Your task to perform on an android device: Open eBay Image 0: 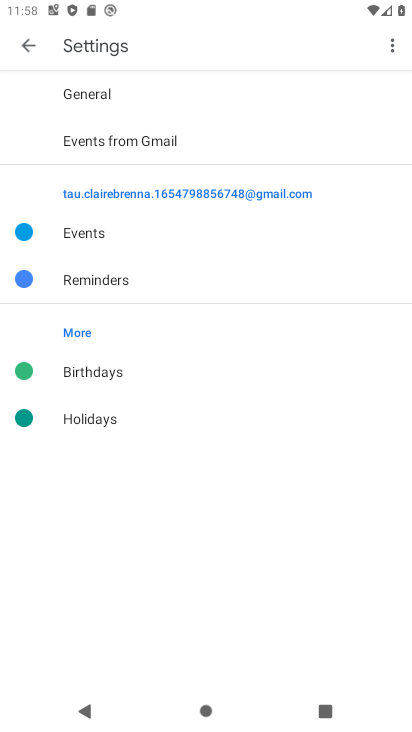
Step 0: press home button
Your task to perform on an android device: Open eBay Image 1: 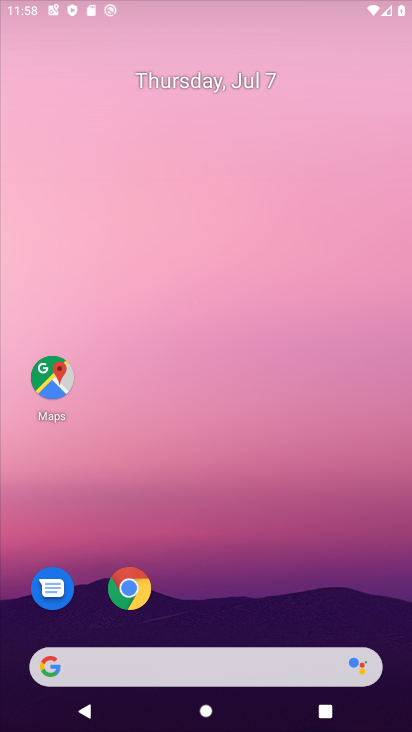
Step 1: drag from (223, 600) to (227, 142)
Your task to perform on an android device: Open eBay Image 2: 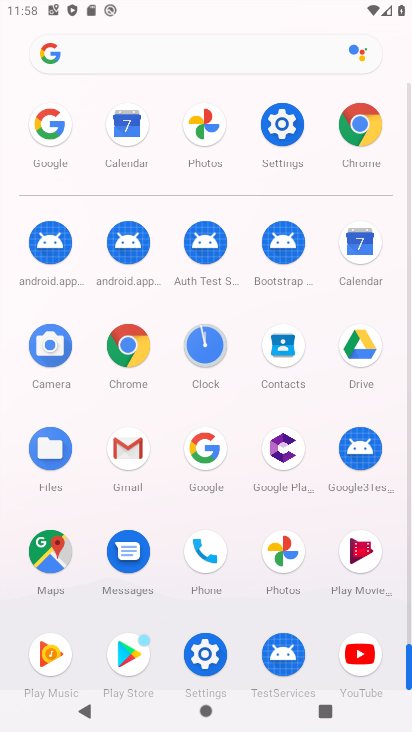
Step 2: click (207, 451)
Your task to perform on an android device: Open eBay Image 3: 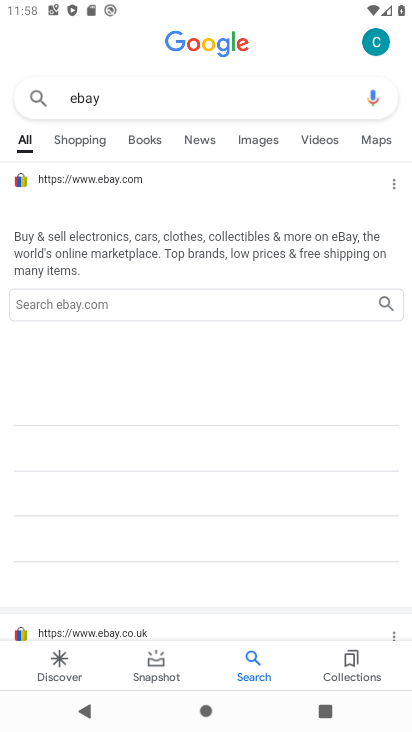
Step 3: click (192, 102)
Your task to perform on an android device: Open eBay Image 4: 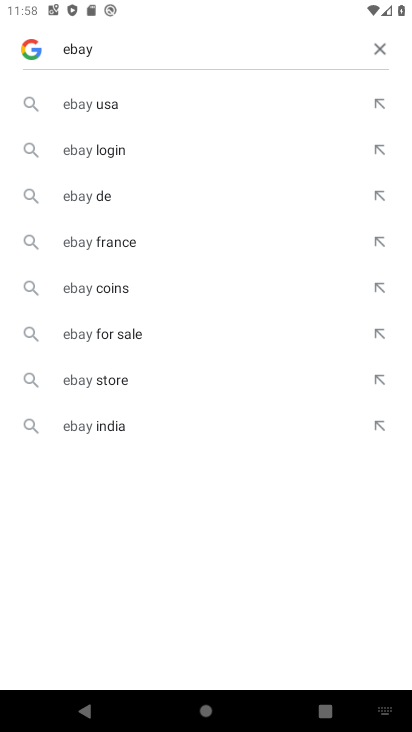
Step 4: click (367, 49)
Your task to perform on an android device: Open eBay Image 5: 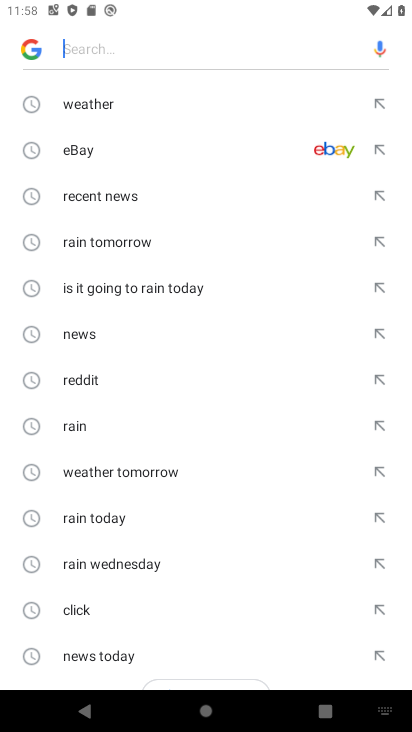
Step 5: click (99, 171)
Your task to perform on an android device: Open eBay Image 6: 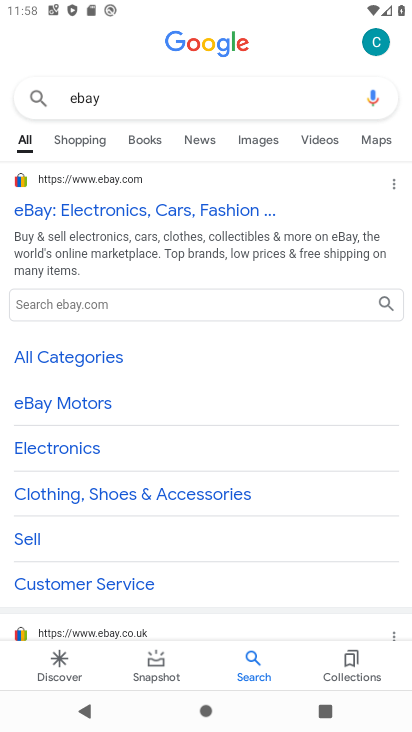
Step 6: click (96, 202)
Your task to perform on an android device: Open eBay Image 7: 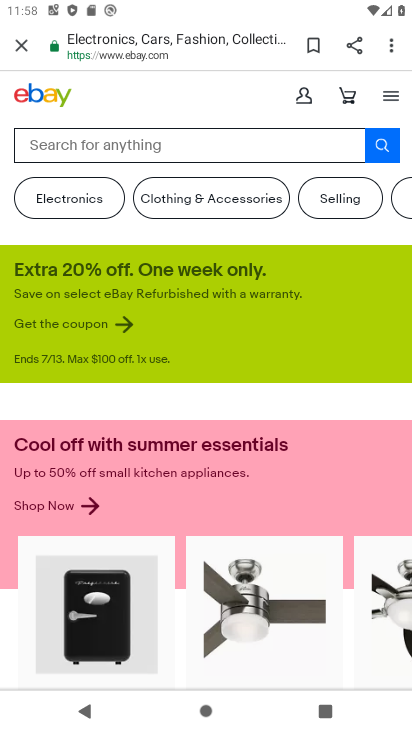
Step 7: task complete